Your task to perform on an android device: turn on wifi Image 0: 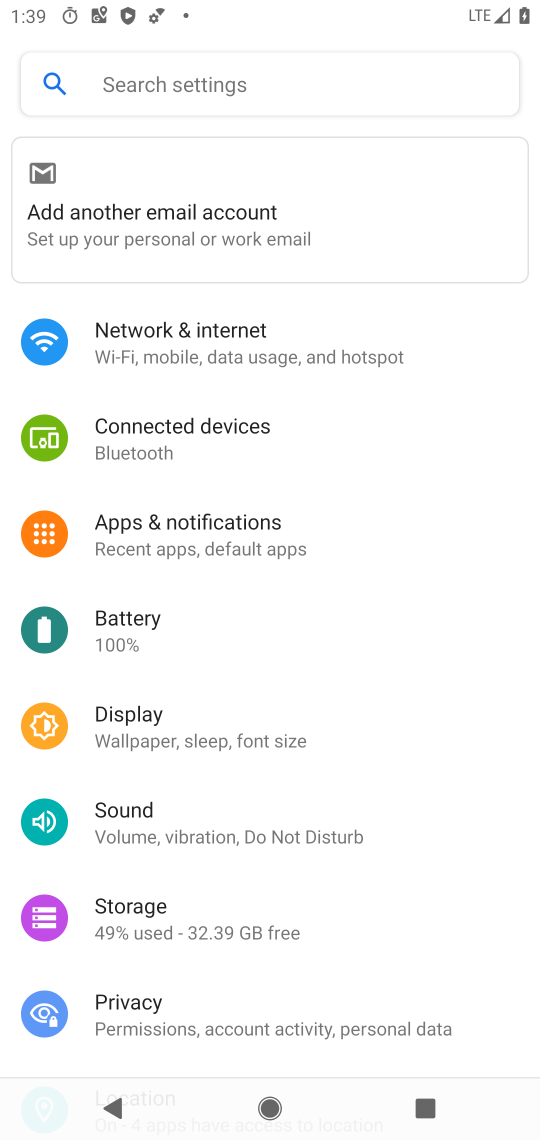
Step 0: click (114, 342)
Your task to perform on an android device: turn on wifi Image 1: 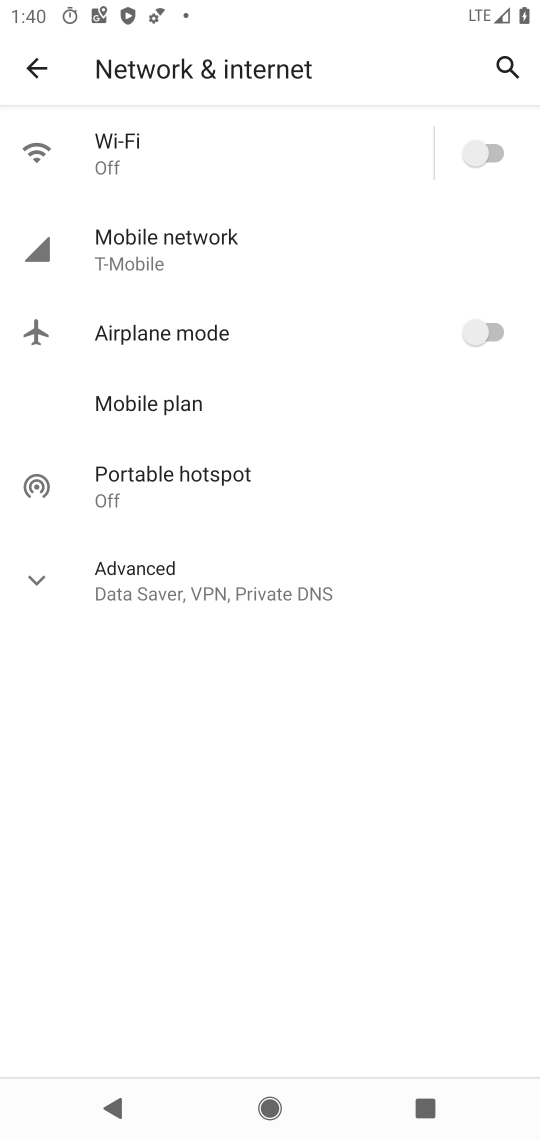
Step 1: click (484, 144)
Your task to perform on an android device: turn on wifi Image 2: 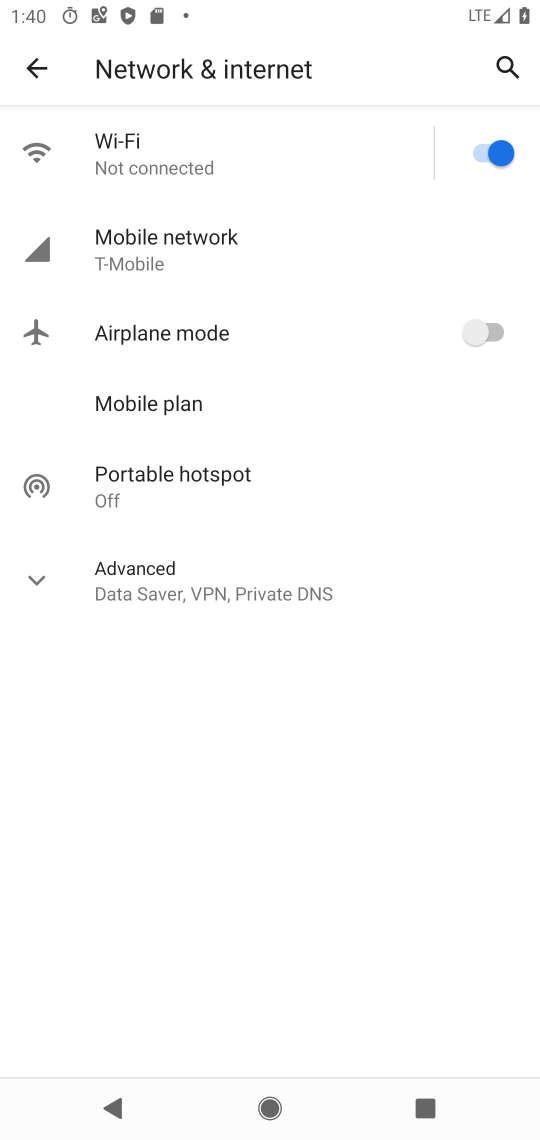
Step 2: task complete